Your task to perform on an android device: Open CNN.com Image 0: 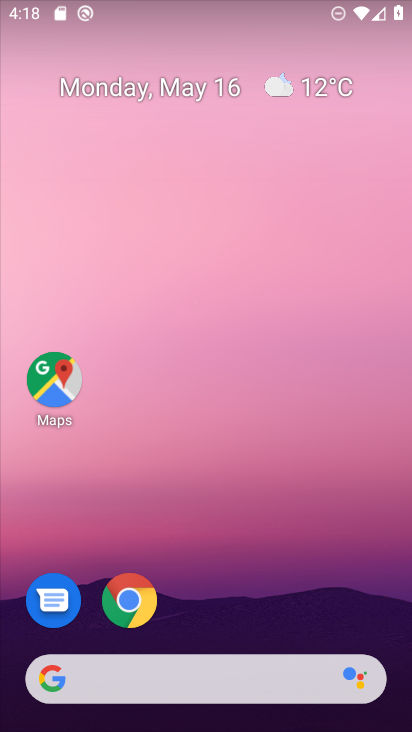
Step 0: click (130, 602)
Your task to perform on an android device: Open CNN.com Image 1: 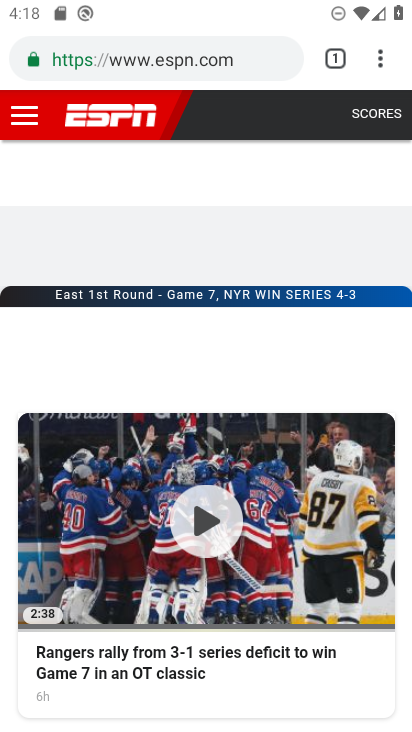
Step 1: click (259, 57)
Your task to perform on an android device: Open CNN.com Image 2: 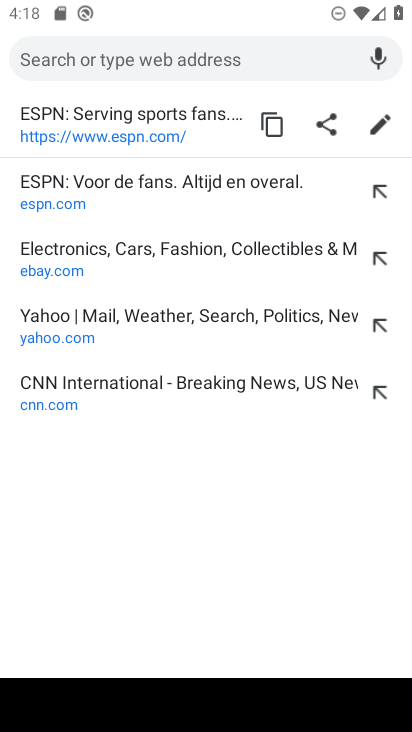
Step 2: type "cnn.com"
Your task to perform on an android device: Open CNN.com Image 3: 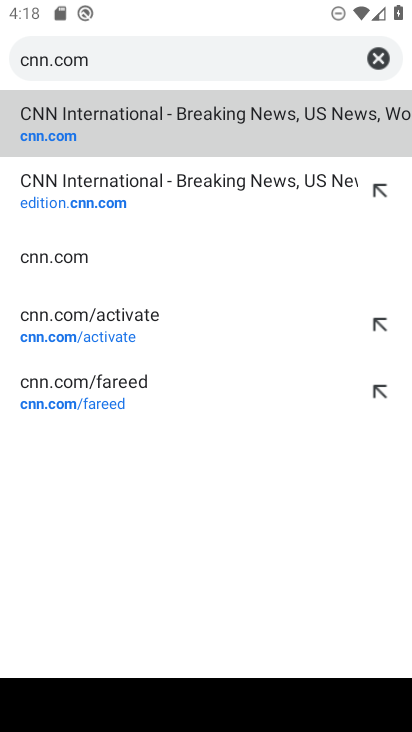
Step 3: click (49, 138)
Your task to perform on an android device: Open CNN.com Image 4: 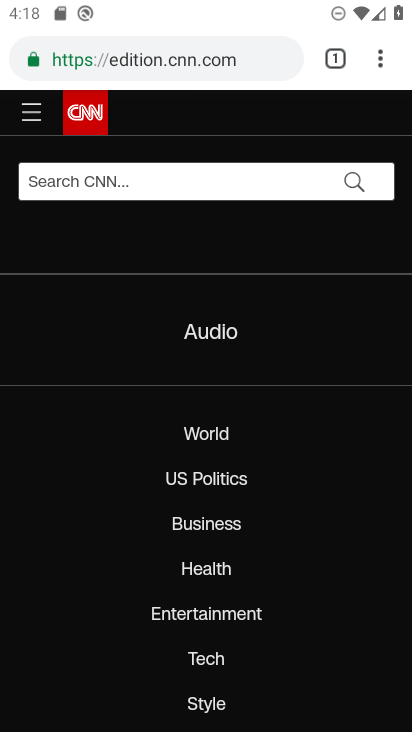
Step 4: task complete